Your task to perform on an android device: turn on location history Image 0: 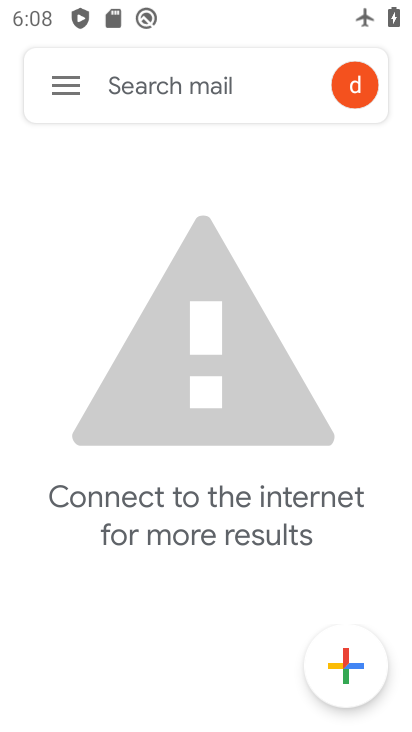
Step 0: press home button
Your task to perform on an android device: turn on location history Image 1: 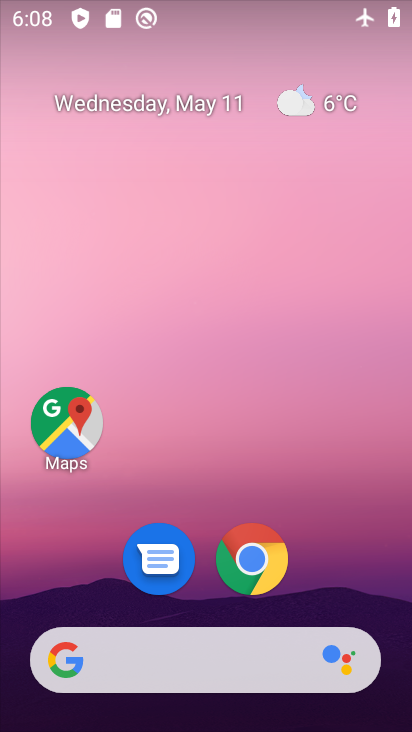
Step 1: drag from (351, 569) to (226, 192)
Your task to perform on an android device: turn on location history Image 2: 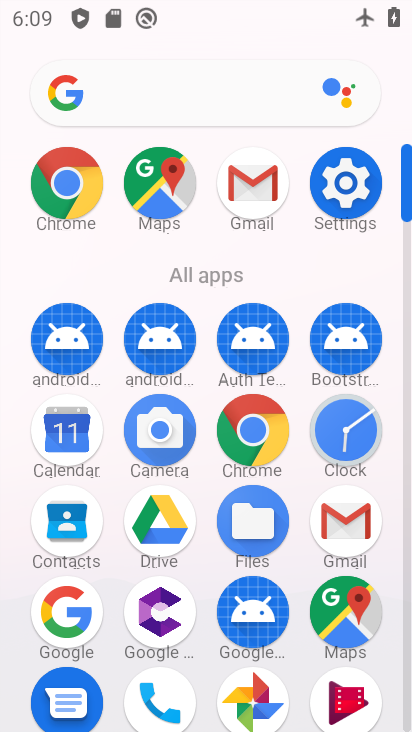
Step 2: click (353, 622)
Your task to perform on an android device: turn on location history Image 3: 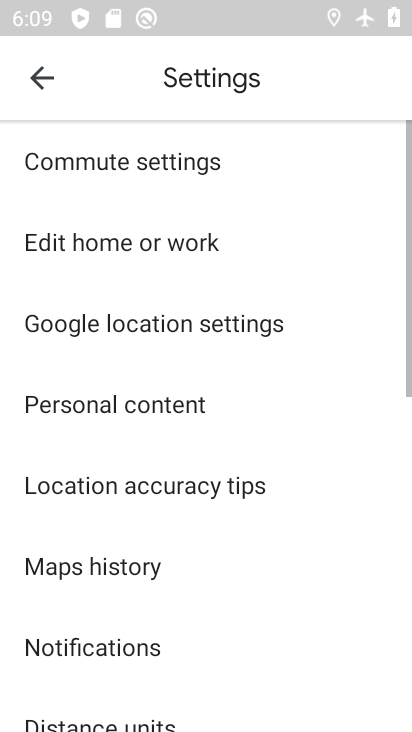
Step 3: drag from (337, 7) to (318, 528)
Your task to perform on an android device: turn on location history Image 4: 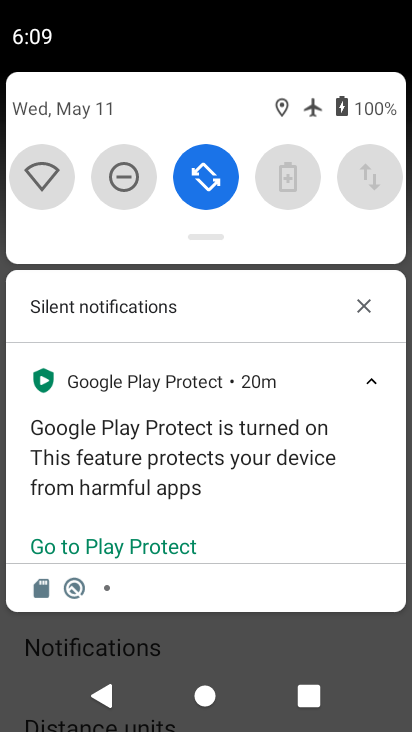
Step 4: drag from (201, 237) to (182, 578)
Your task to perform on an android device: turn on location history Image 5: 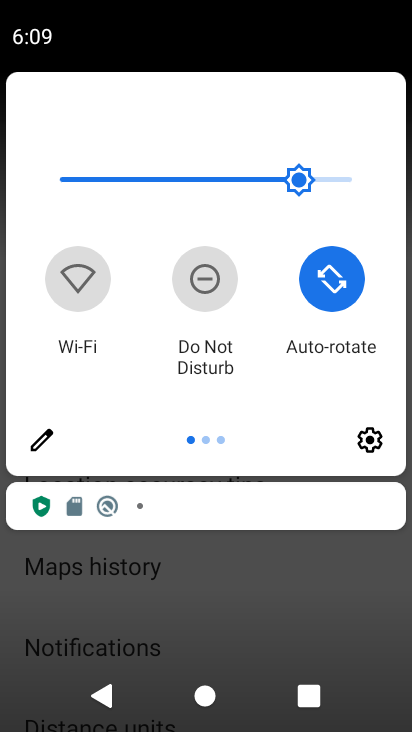
Step 5: drag from (392, 273) to (38, 381)
Your task to perform on an android device: turn on location history Image 6: 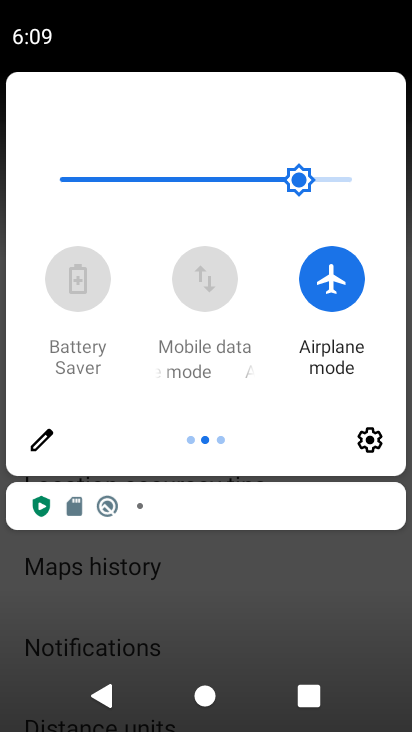
Step 6: click (347, 294)
Your task to perform on an android device: turn on location history Image 7: 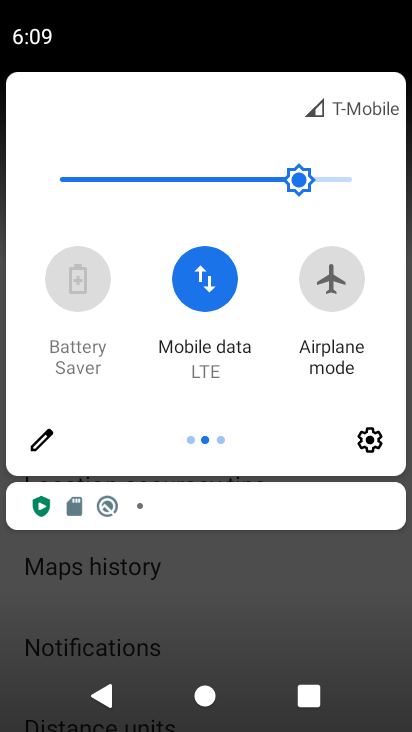
Step 7: drag from (225, 644) to (223, 282)
Your task to perform on an android device: turn on location history Image 8: 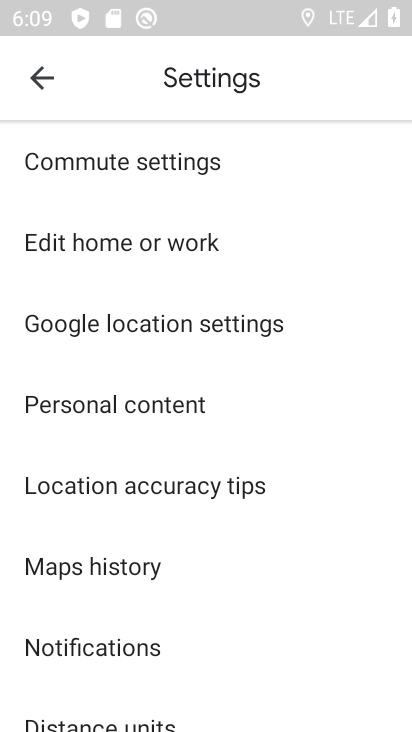
Step 8: click (41, 83)
Your task to perform on an android device: turn on location history Image 9: 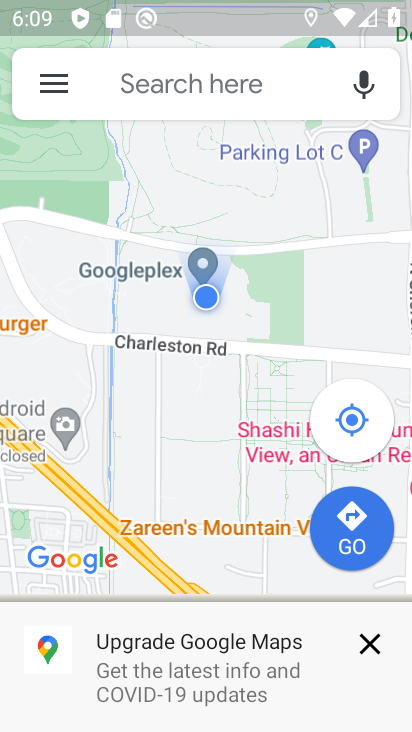
Step 9: click (41, 83)
Your task to perform on an android device: turn on location history Image 10: 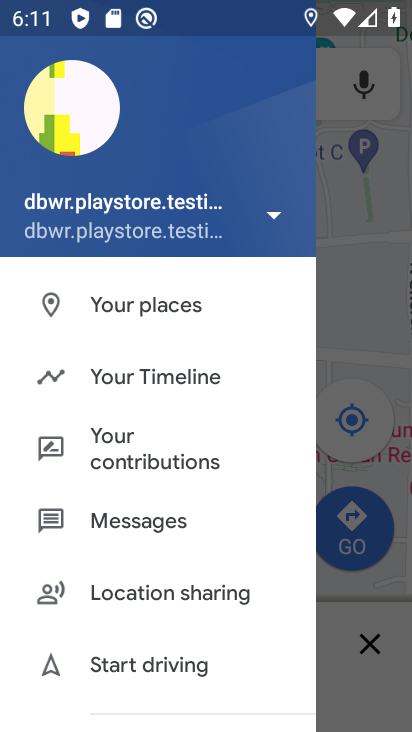
Step 10: click (103, 387)
Your task to perform on an android device: turn on location history Image 11: 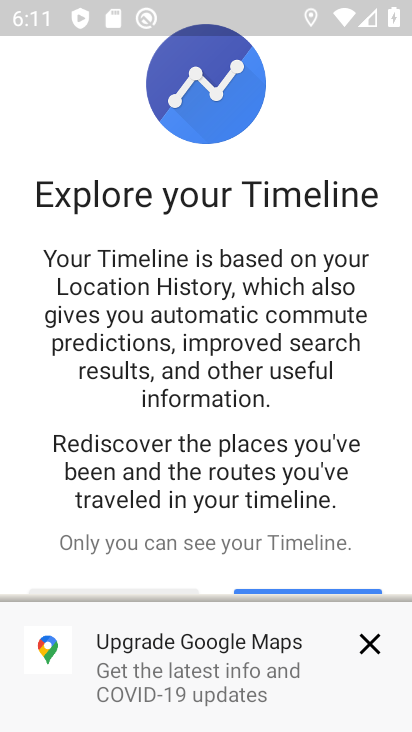
Step 11: click (374, 643)
Your task to perform on an android device: turn on location history Image 12: 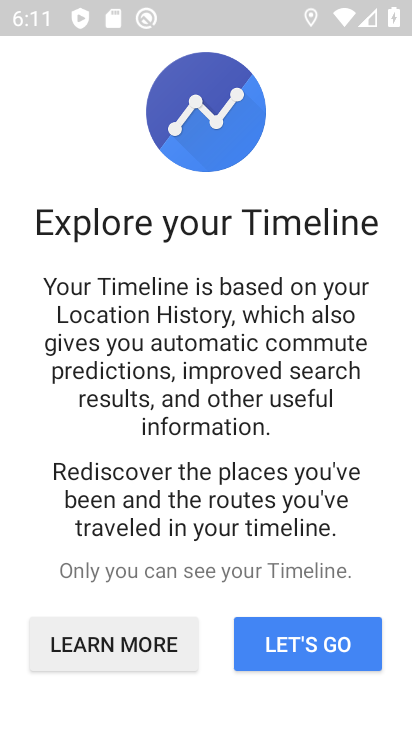
Step 12: click (327, 643)
Your task to perform on an android device: turn on location history Image 13: 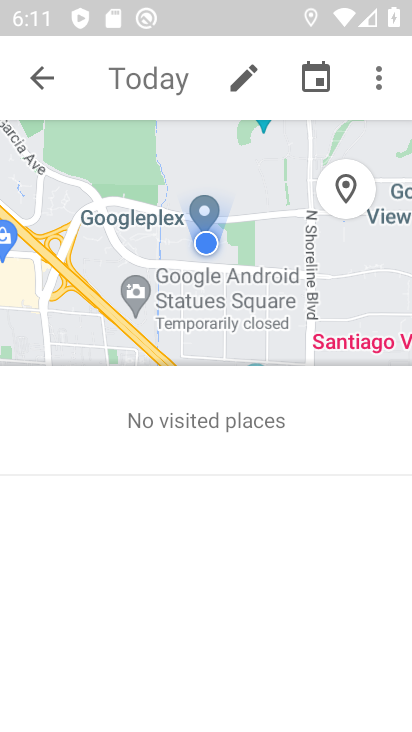
Step 13: click (381, 89)
Your task to perform on an android device: turn on location history Image 14: 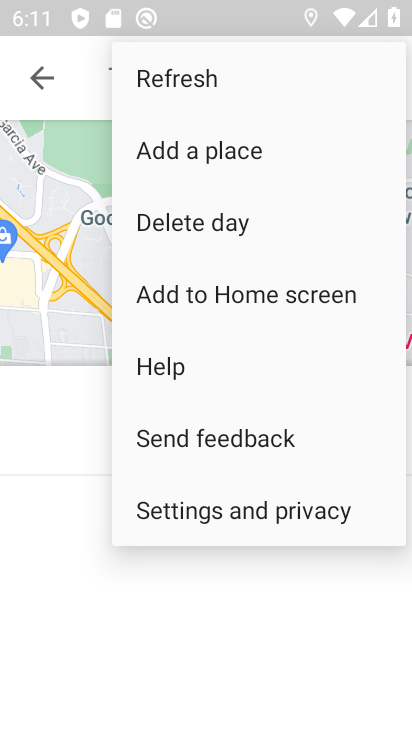
Step 14: click (238, 517)
Your task to perform on an android device: turn on location history Image 15: 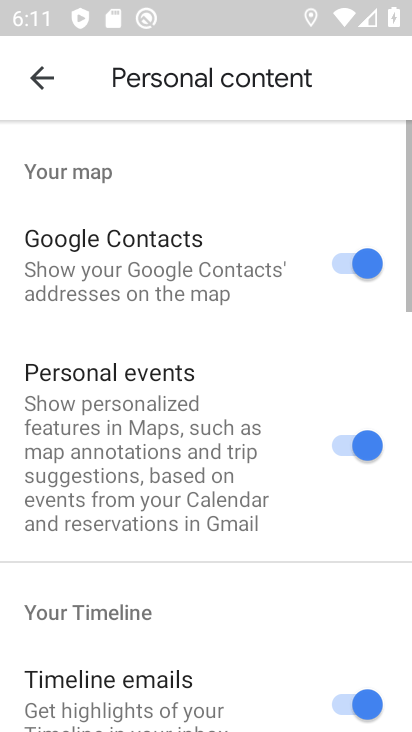
Step 15: drag from (263, 606) to (135, 117)
Your task to perform on an android device: turn on location history Image 16: 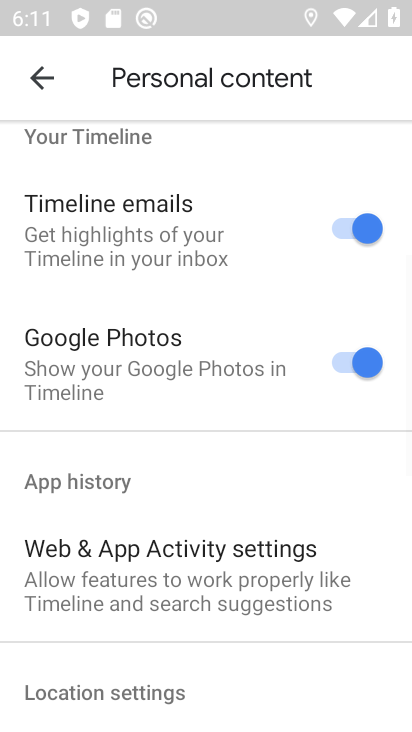
Step 16: drag from (213, 540) to (126, 195)
Your task to perform on an android device: turn on location history Image 17: 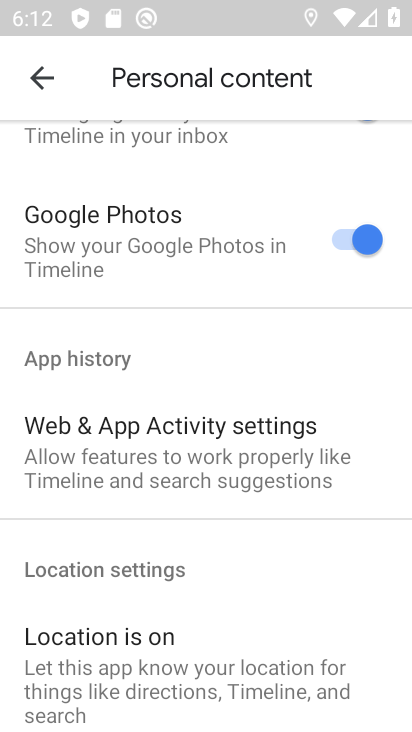
Step 17: drag from (179, 623) to (145, 274)
Your task to perform on an android device: turn on location history Image 18: 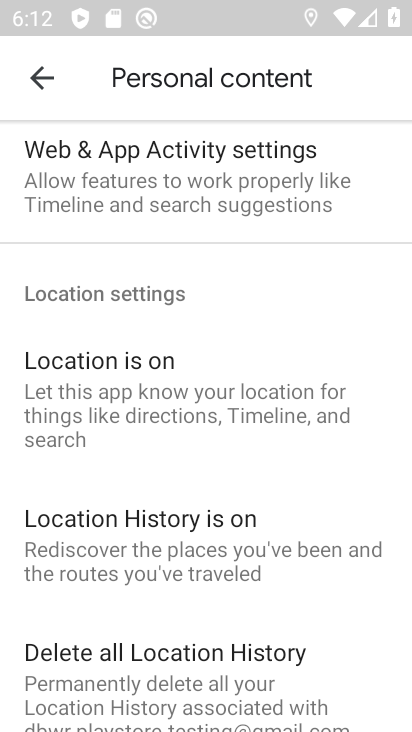
Step 18: click (140, 567)
Your task to perform on an android device: turn on location history Image 19: 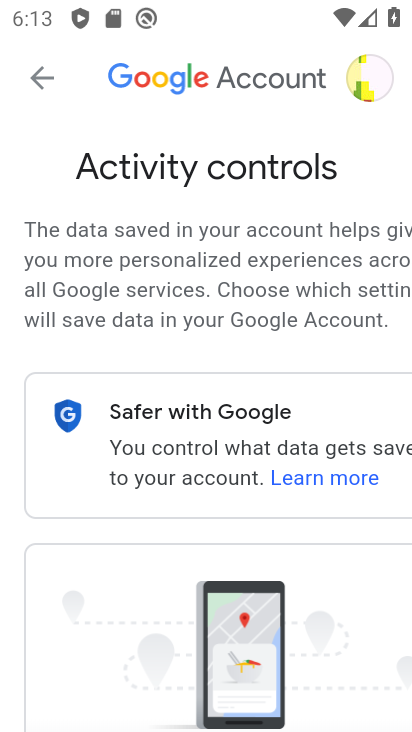
Step 19: task complete